Your task to perform on an android device: Open Youtube and go to "Your channel" Image 0: 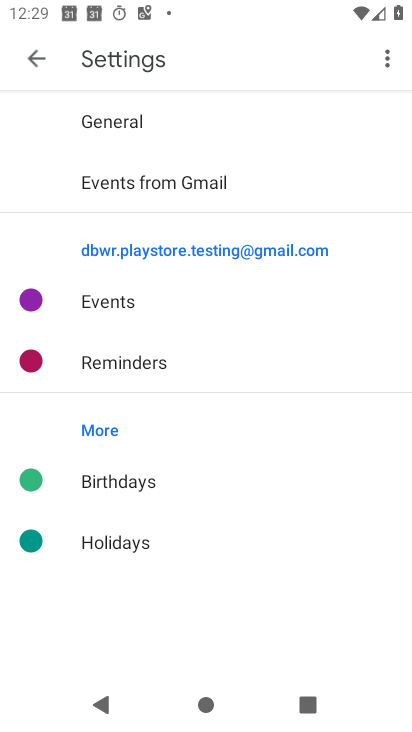
Step 0: press home button
Your task to perform on an android device: Open Youtube and go to "Your channel" Image 1: 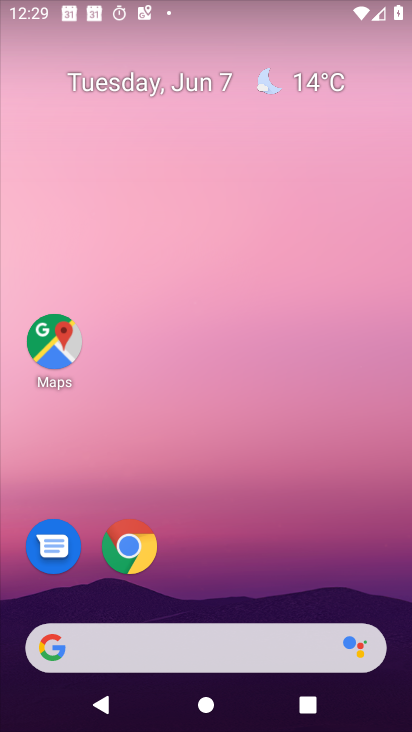
Step 1: drag from (276, 525) to (359, 122)
Your task to perform on an android device: Open Youtube and go to "Your channel" Image 2: 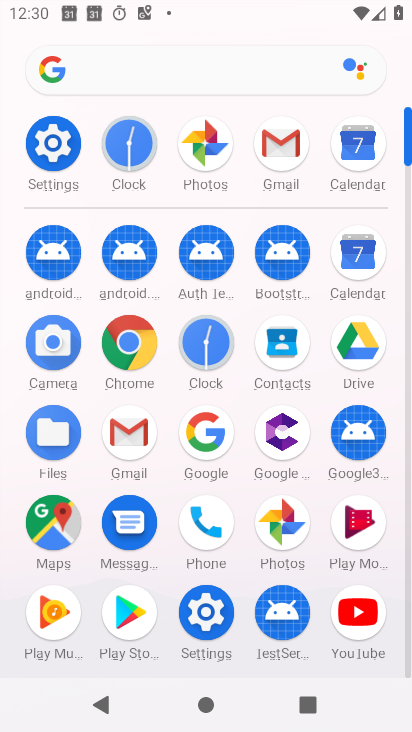
Step 2: click (382, 634)
Your task to perform on an android device: Open Youtube and go to "Your channel" Image 3: 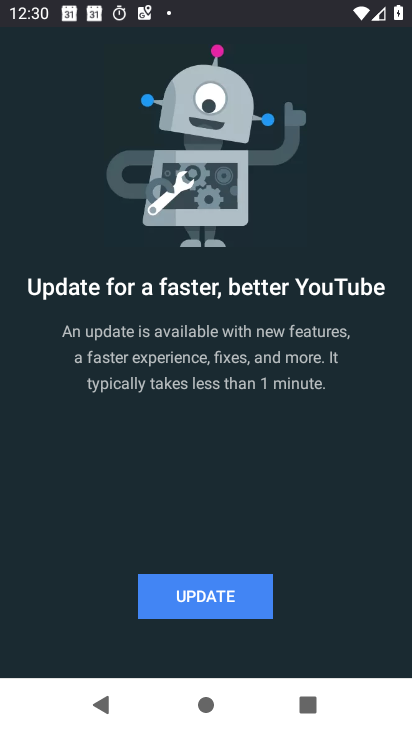
Step 3: click (213, 600)
Your task to perform on an android device: Open Youtube and go to "Your channel" Image 4: 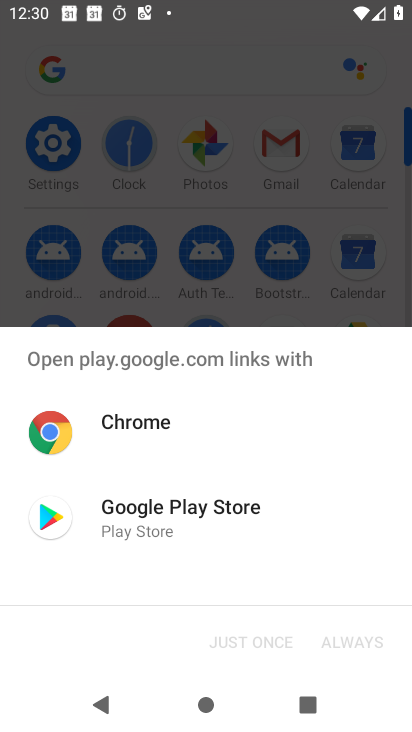
Step 4: click (168, 525)
Your task to perform on an android device: Open Youtube and go to "Your channel" Image 5: 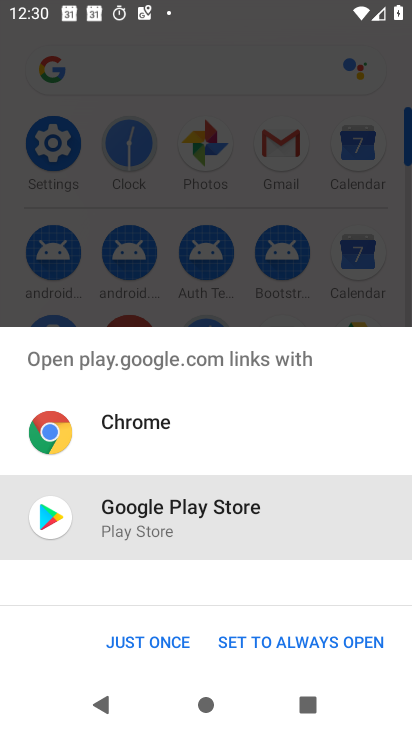
Step 5: click (149, 634)
Your task to perform on an android device: Open Youtube and go to "Your channel" Image 6: 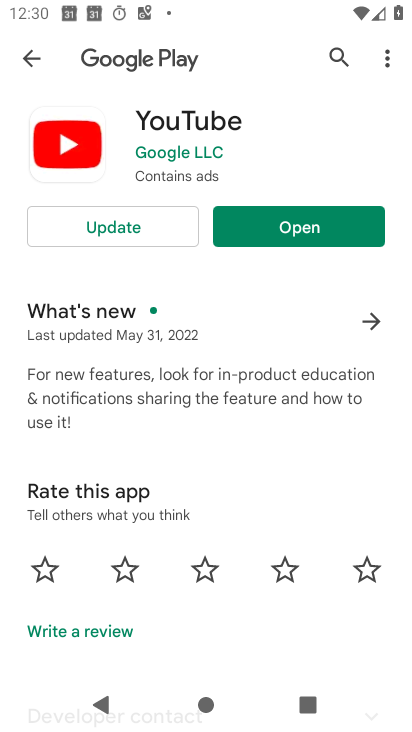
Step 6: click (139, 229)
Your task to perform on an android device: Open Youtube and go to "Your channel" Image 7: 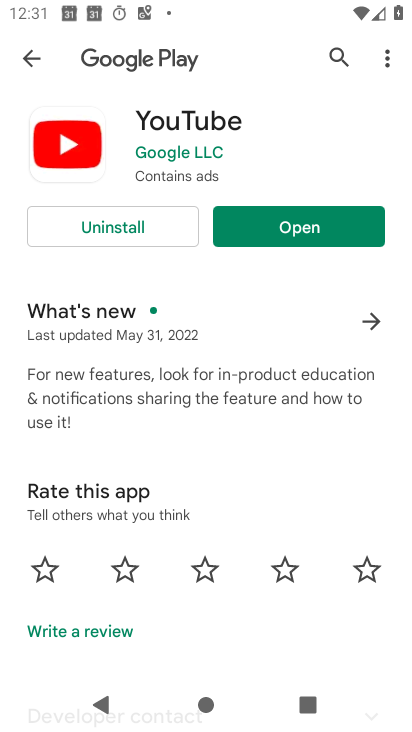
Step 7: click (258, 234)
Your task to perform on an android device: Open Youtube and go to "Your channel" Image 8: 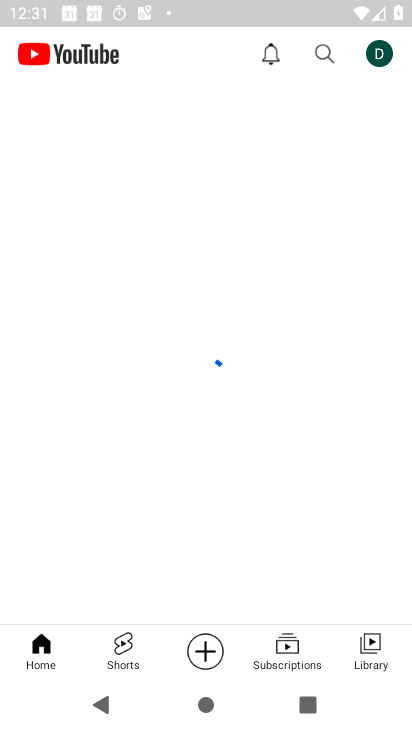
Step 8: click (379, 44)
Your task to perform on an android device: Open Youtube and go to "Your channel" Image 9: 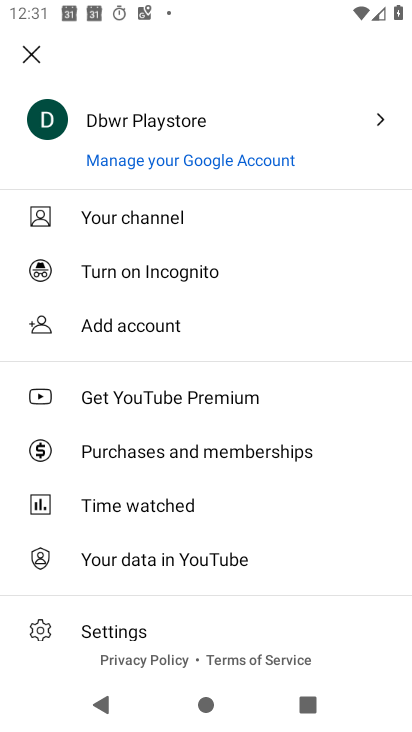
Step 9: click (170, 229)
Your task to perform on an android device: Open Youtube and go to "Your channel" Image 10: 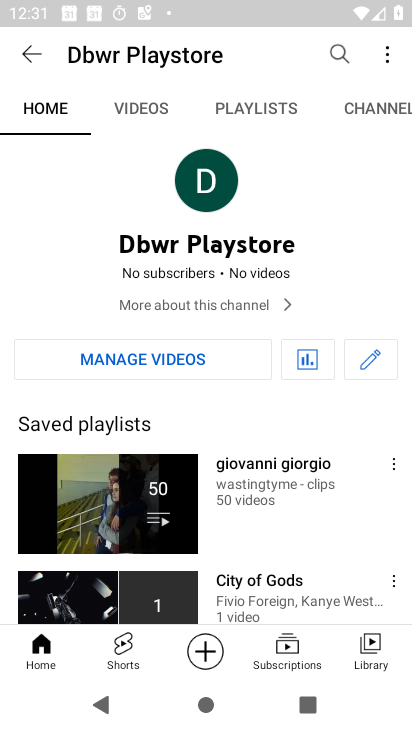
Step 10: task complete